Your task to perform on an android device: Open privacy settings Image 0: 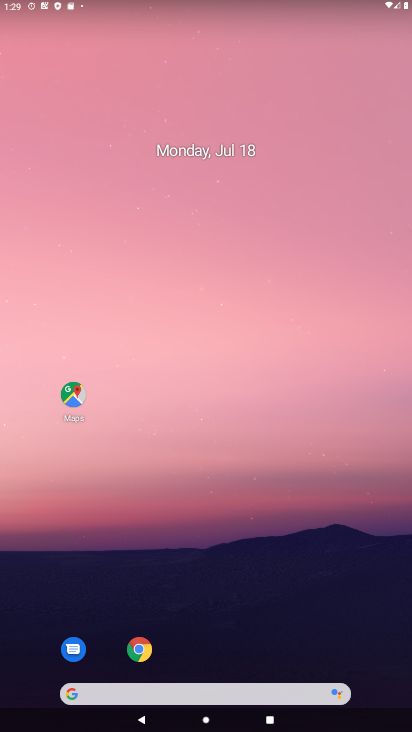
Step 0: drag from (228, 664) to (201, 131)
Your task to perform on an android device: Open privacy settings Image 1: 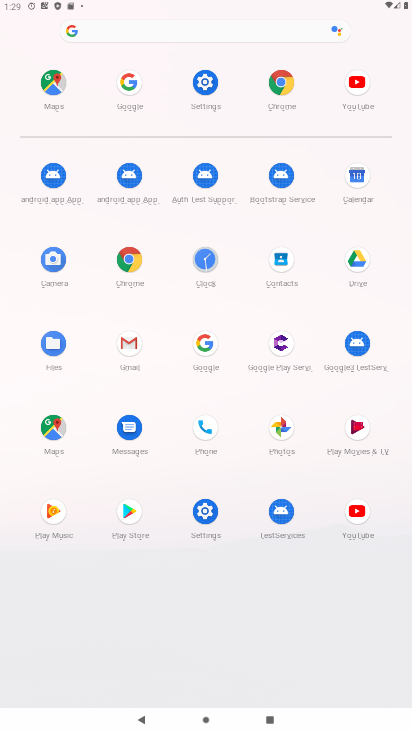
Step 1: click (205, 519)
Your task to perform on an android device: Open privacy settings Image 2: 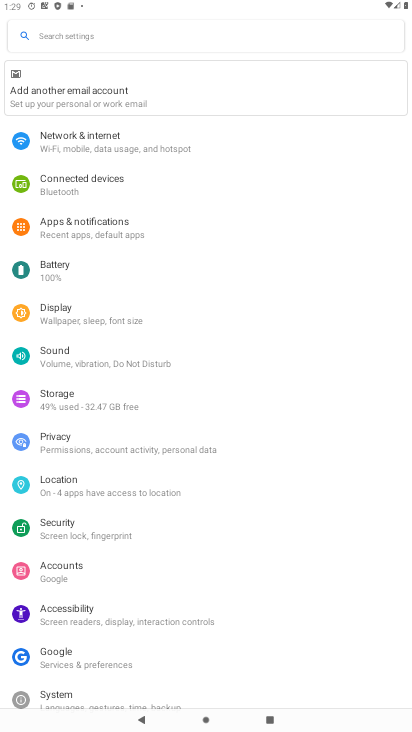
Step 2: click (96, 447)
Your task to perform on an android device: Open privacy settings Image 3: 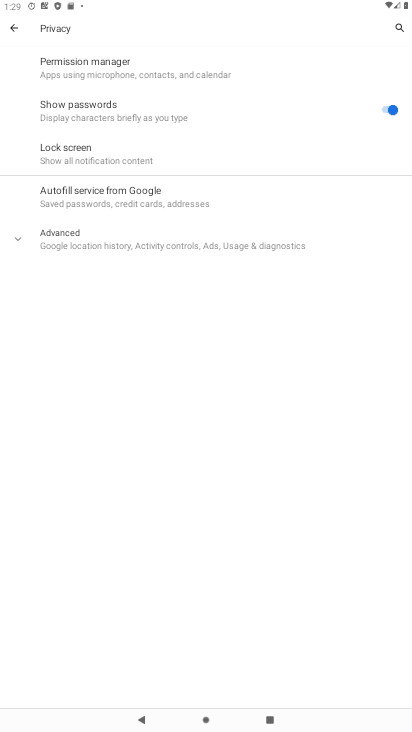
Step 3: task complete